Your task to perform on an android device: snooze an email in the gmail app Image 0: 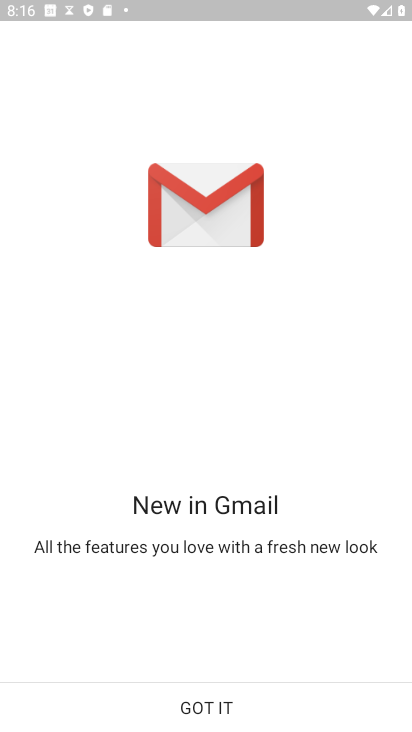
Step 0: click (245, 713)
Your task to perform on an android device: snooze an email in the gmail app Image 1: 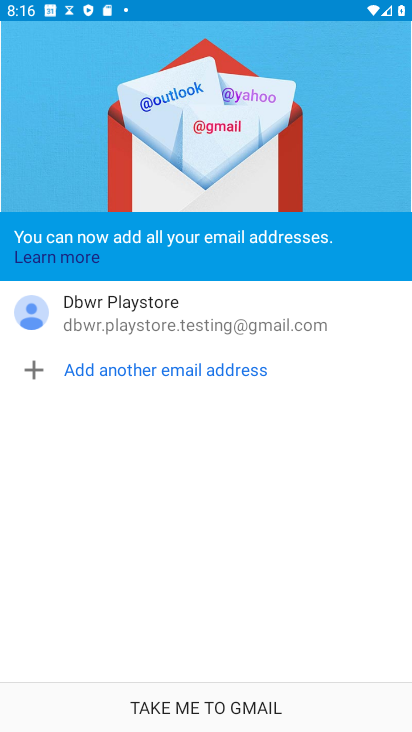
Step 1: click (245, 713)
Your task to perform on an android device: snooze an email in the gmail app Image 2: 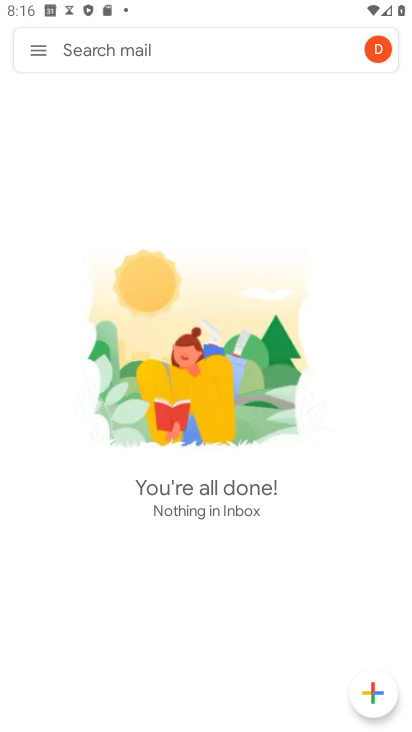
Step 2: click (41, 54)
Your task to perform on an android device: snooze an email in the gmail app Image 3: 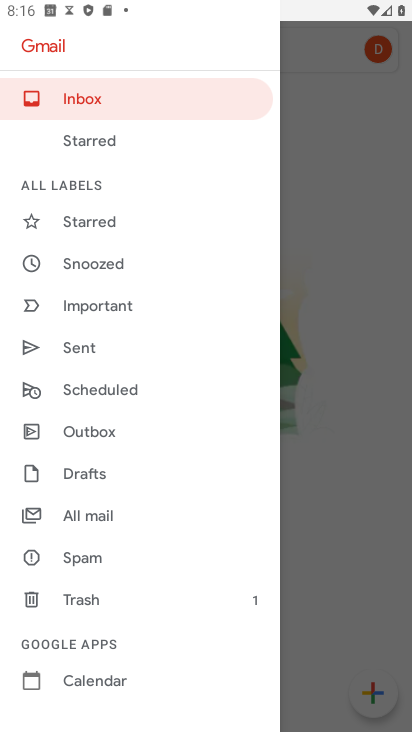
Step 3: click (72, 524)
Your task to perform on an android device: snooze an email in the gmail app Image 4: 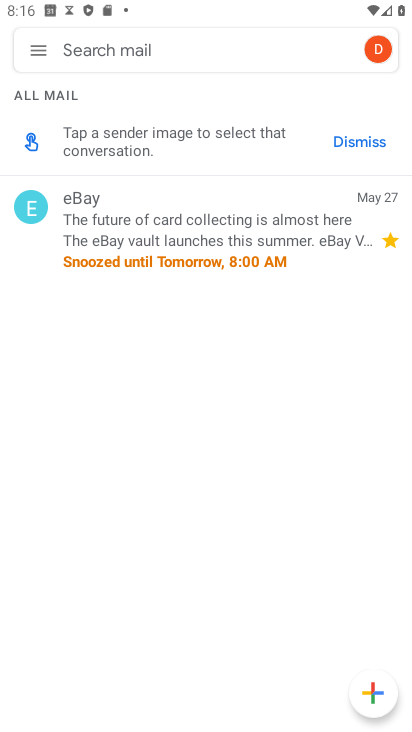
Step 4: click (36, 209)
Your task to perform on an android device: snooze an email in the gmail app Image 5: 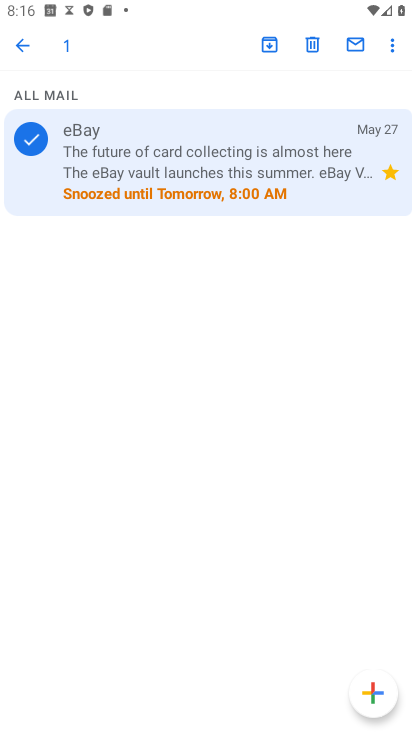
Step 5: click (386, 50)
Your task to perform on an android device: snooze an email in the gmail app Image 6: 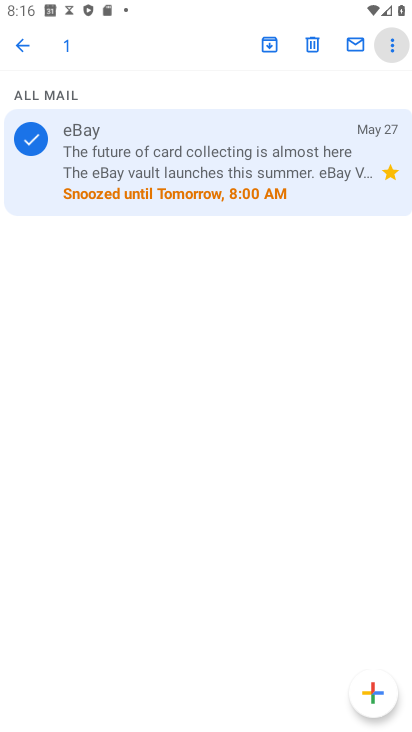
Step 6: click (386, 50)
Your task to perform on an android device: snooze an email in the gmail app Image 7: 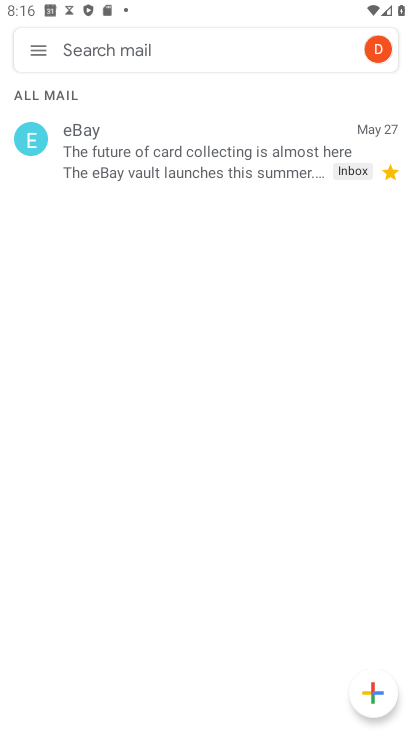
Step 7: click (20, 130)
Your task to perform on an android device: snooze an email in the gmail app Image 8: 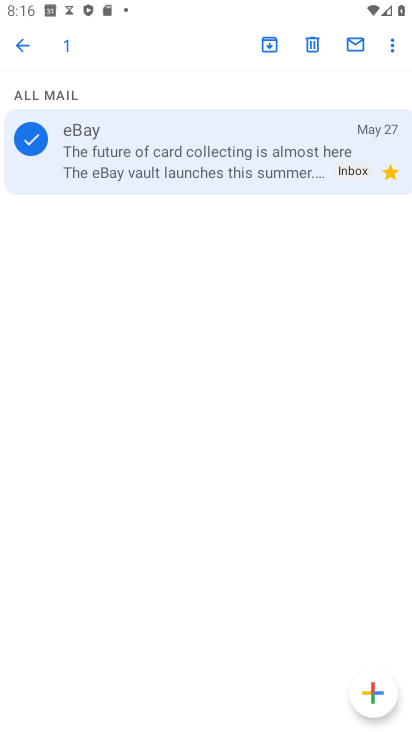
Step 8: click (394, 46)
Your task to perform on an android device: snooze an email in the gmail app Image 9: 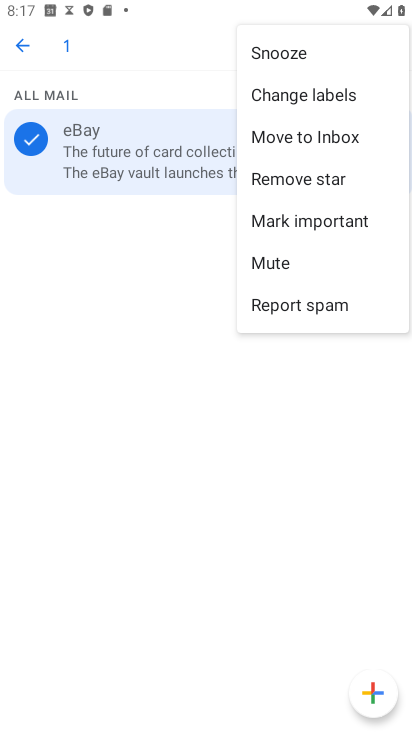
Step 9: click (323, 56)
Your task to perform on an android device: snooze an email in the gmail app Image 10: 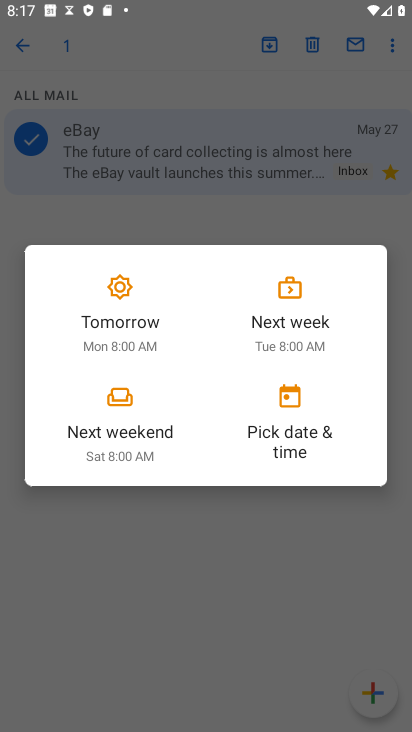
Step 10: click (291, 341)
Your task to perform on an android device: snooze an email in the gmail app Image 11: 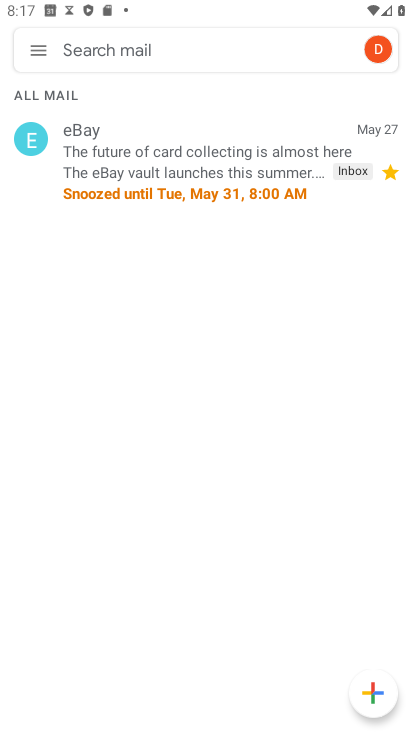
Step 11: task complete